Your task to perform on an android device: delete a single message in the gmail app Image 0: 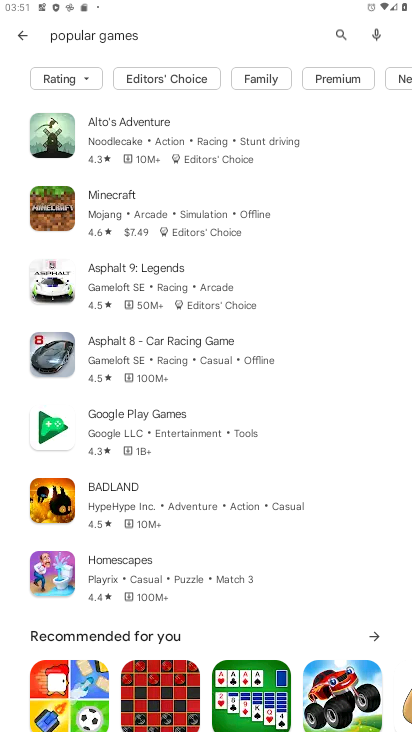
Step 0: press home button
Your task to perform on an android device: delete a single message in the gmail app Image 1: 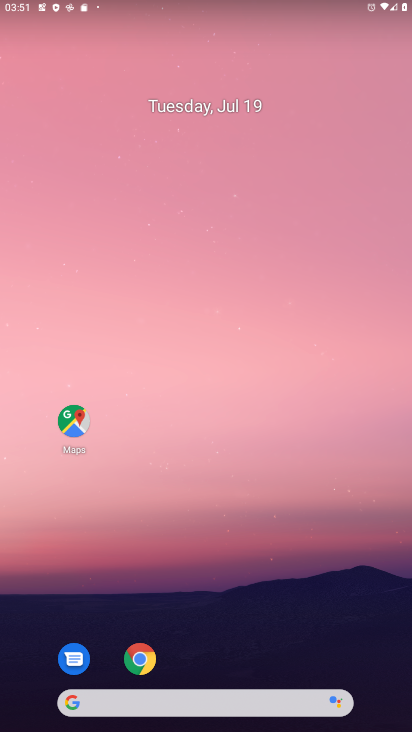
Step 1: drag from (222, 682) to (267, 12)
Your task to perform on an android device: delete a single message in the gmail app Image 2: 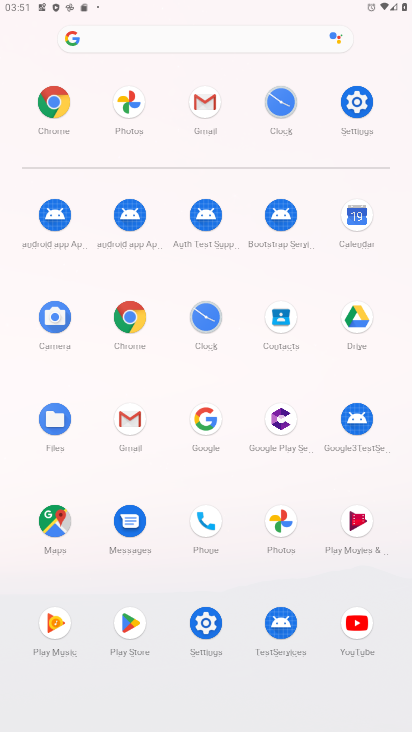
Step 2: click (136, 434)
Your task to perform on an android device: delete a single message in the gmail app Image 3: 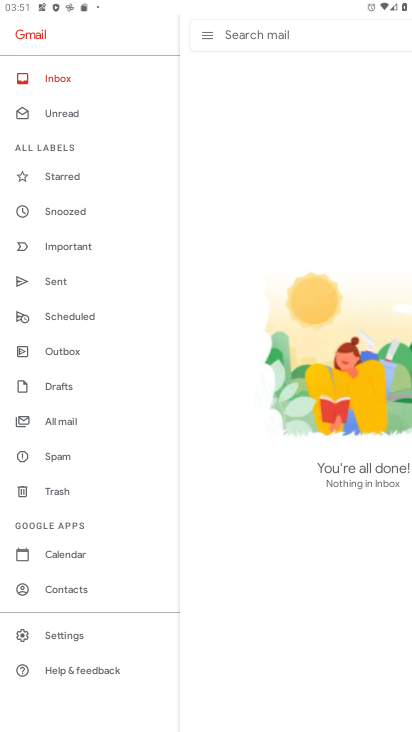
Step 3: click (273, 401)
Your task to perform on an android device: delete a single message in the gmail app Image 4: 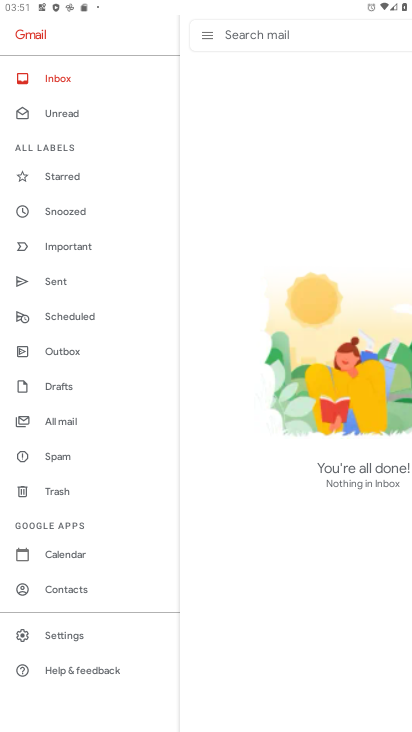
Step 4: task complete